Your task to perform on an android device: turn pop-ups off in chrome Image 0: 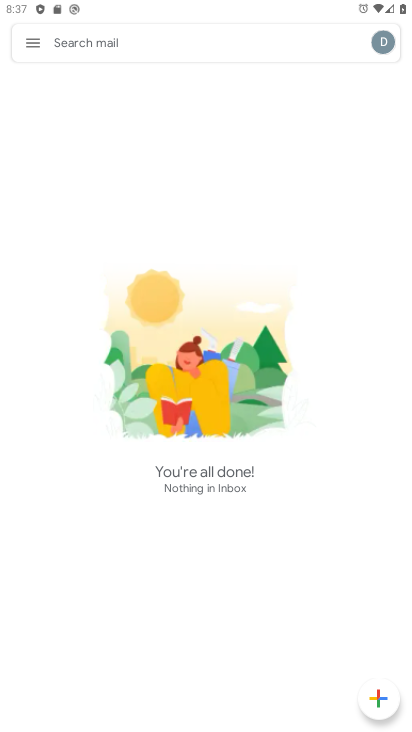
Step 0: press home button
Your task to perform on an android device: turn pop-ups off in chrome Image 1: 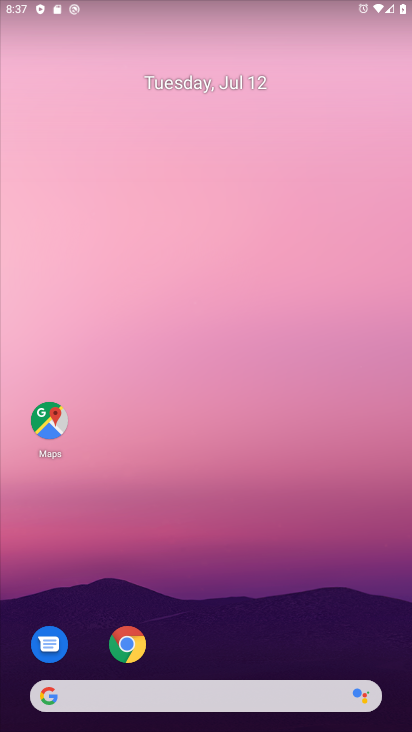
Step 1: click (116, 635)
Your task to perform on an android device: turn pop-ups off in chrome Image 2: 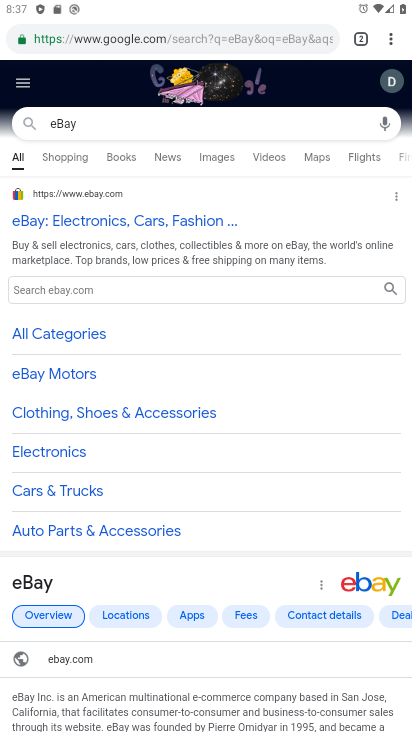
Step 2: click (387, 38)
Your task to perform on an android device: turn pop-ups off in chrome Image 3: 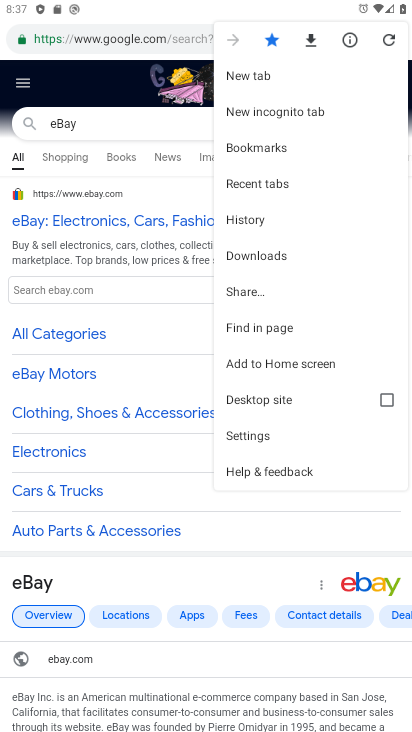
Step 3: click (250, 441)
Your task to perform on an android device: turn pop-ups off in chrome Image 4: 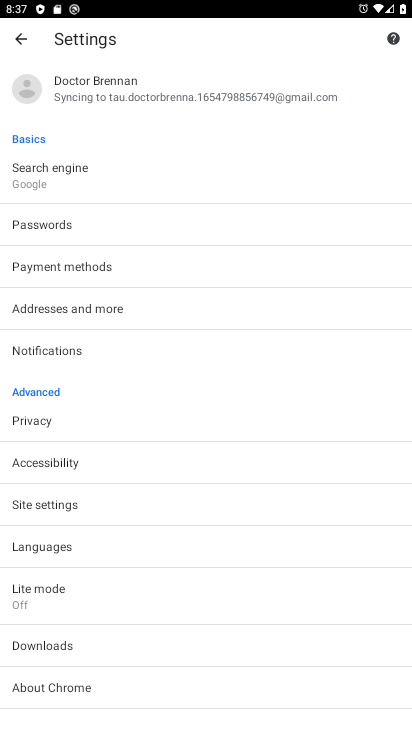
Step 4: click (58, 509)
Your task to perform on an android device: turn pop-ups off in chrome Image 5: 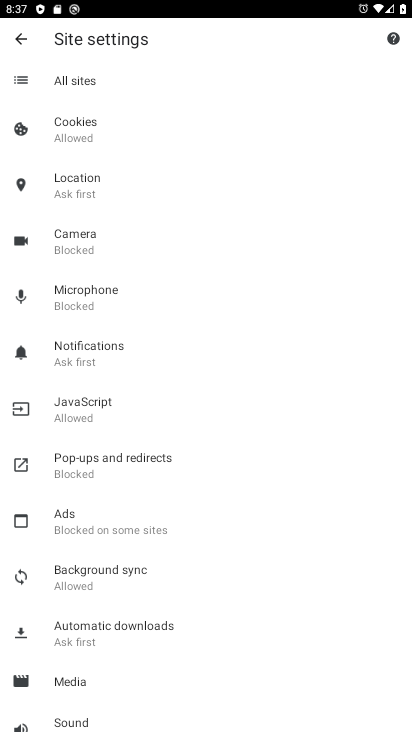
Step 5: click (88, 469)
Your task to perform on an android device: turn pop-ups off in chrome Image 6: 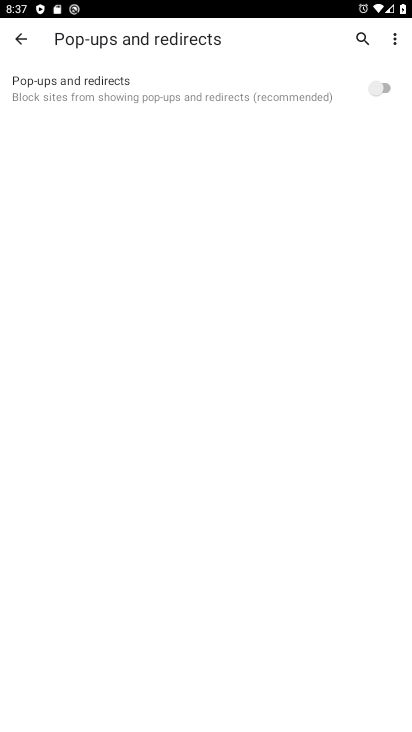
Step 6: click (384, 94)
Your task to perform on an android device: turn pop-ups off in chrome Image 7: 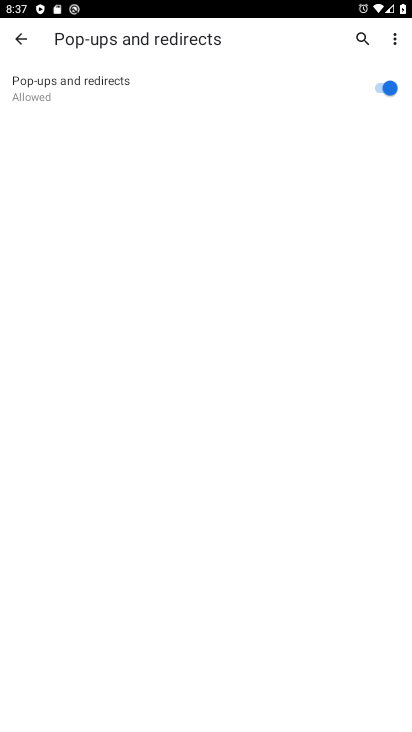
Step 7: task complete